Your task to perform on an android device: Open eBay Image 0: 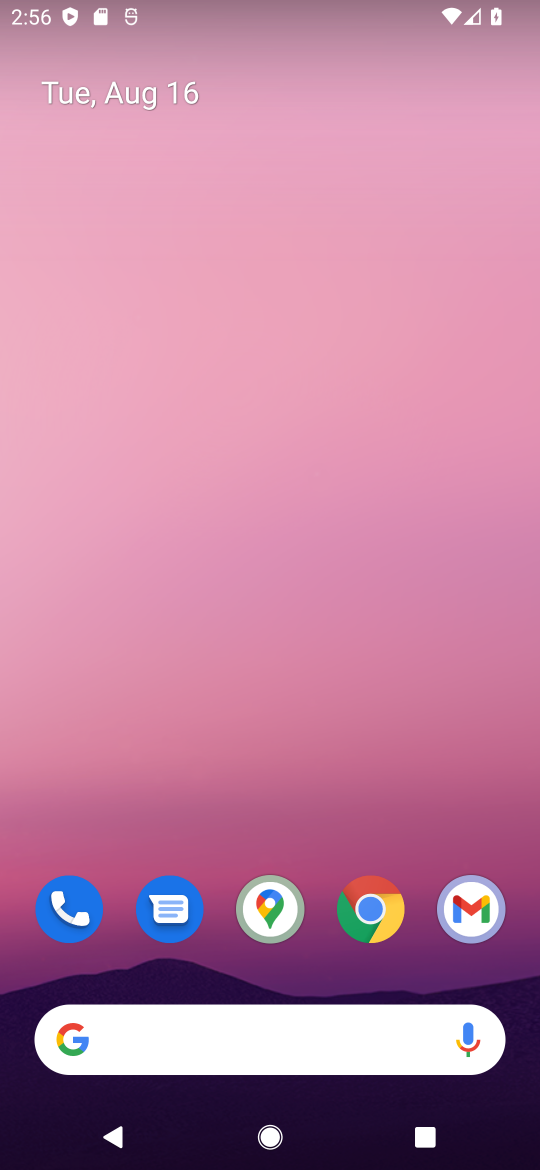
Step 0: drag from (245, 635) to (273, 293)
Your task to perform on an android device: Open eBay Image 1: 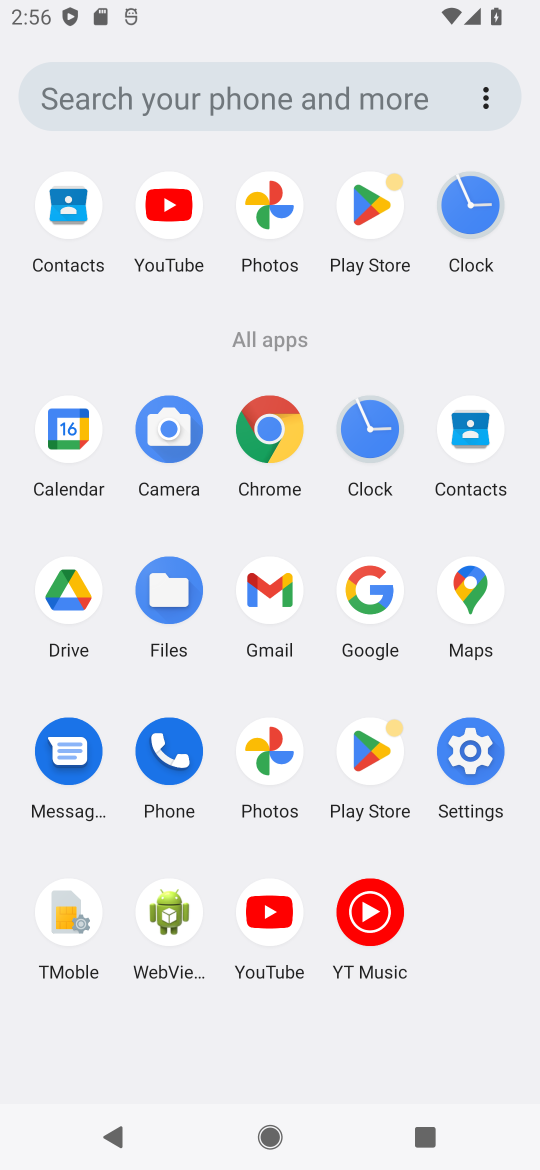
Step 1: click (262, 421)
Your task to perform on an android device: Open eBay Image 2: 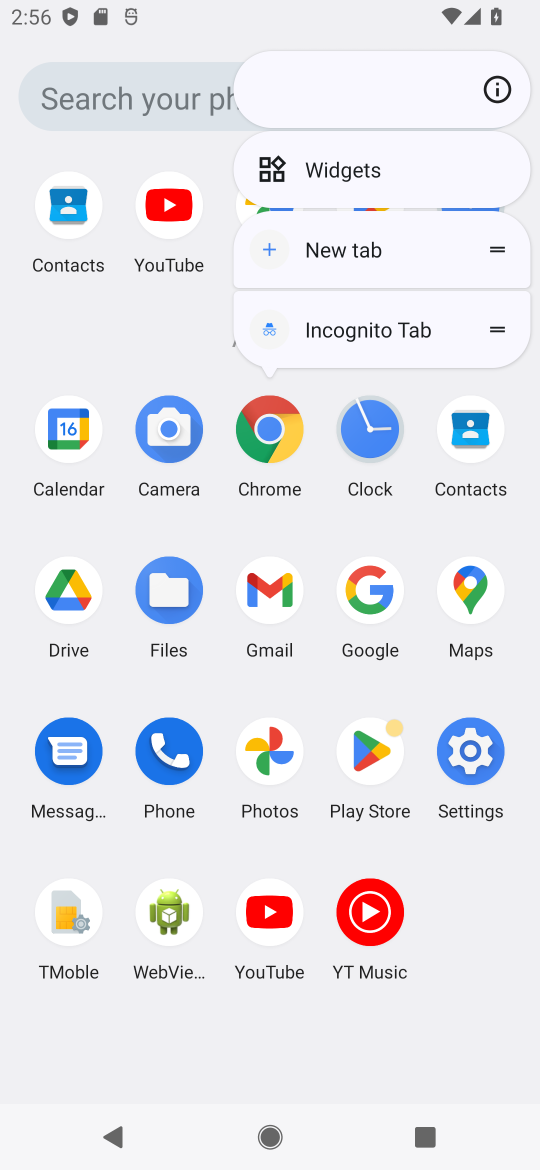
Step 2: click (265, 433)
Your task to perform on an android device: Open eBay Image 3: 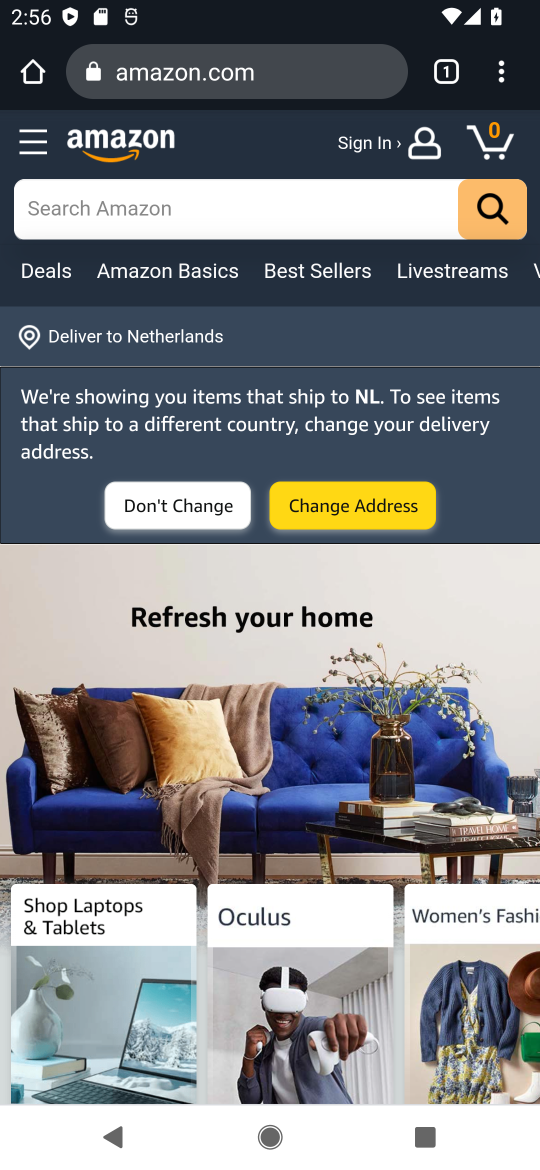
Step 3: press back button
Your task to perform on an android device: Open eBay Image 4: 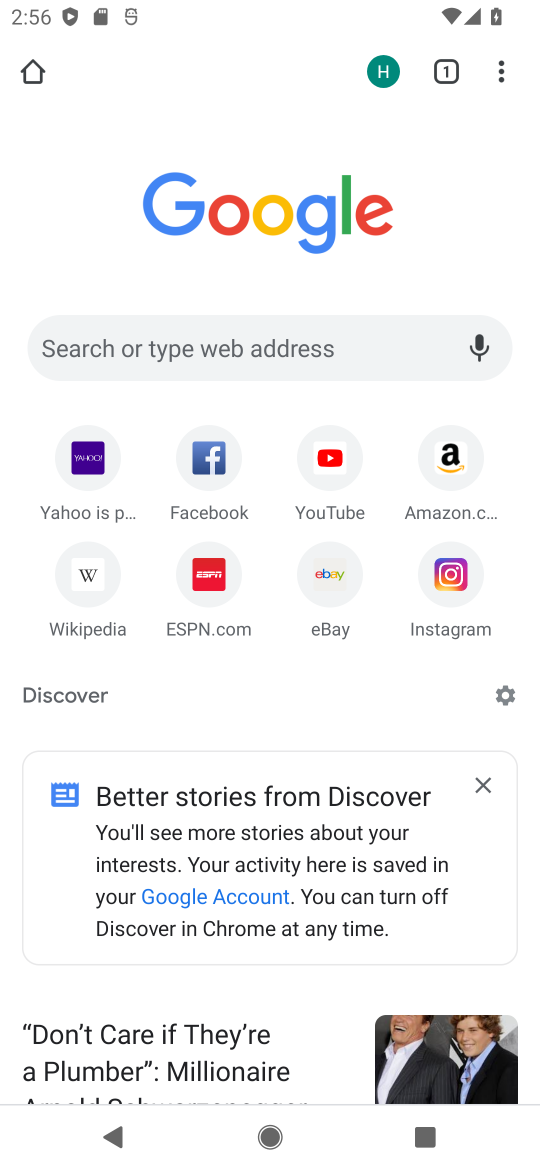
Step 4: click (316, 560)
Your task to perform on an android device: Open eBay Image 5: 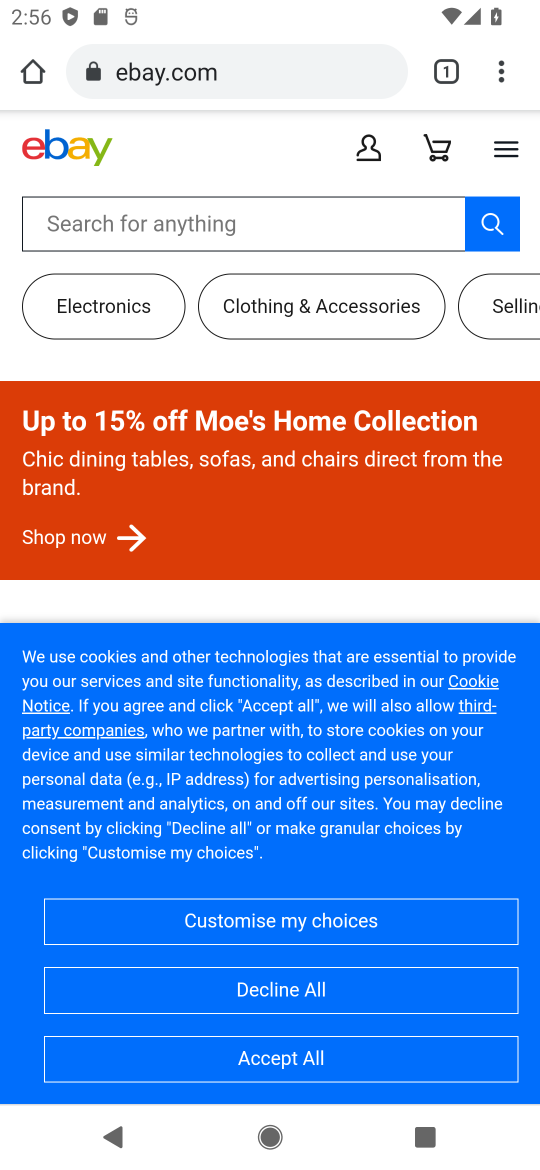
Step 5: task complete